Your task to perform on an android device: change alarm snooze length Image 0: 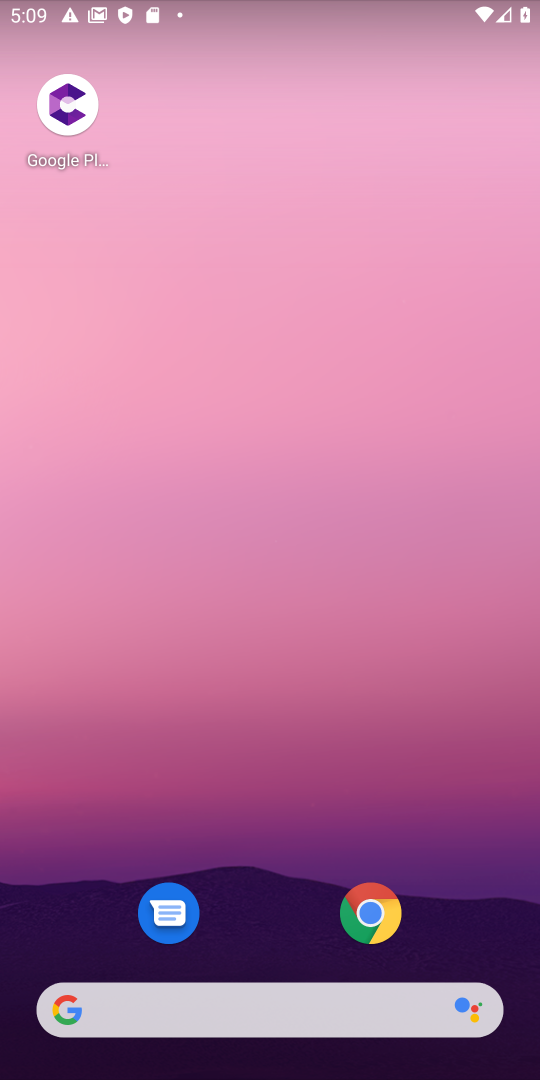
Step 0: drag from (290, 337) to (290, 248)
Your task to perform on an android device: change alarm snooze length Image 1: 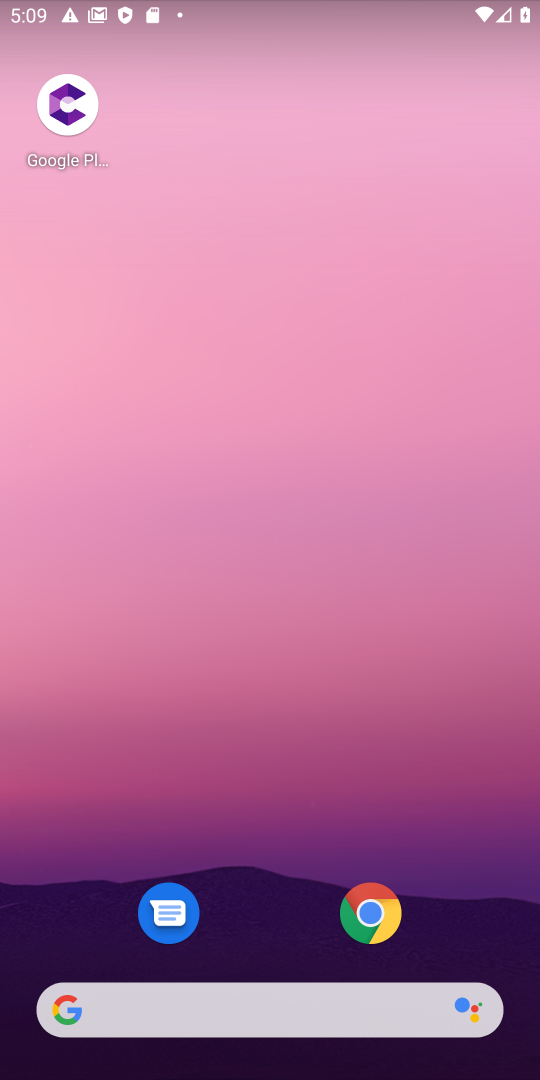
Step 1: drag from (280, 767) to (280, 27)
Your task to perform on an android device: change alarm snooze length Image 2: 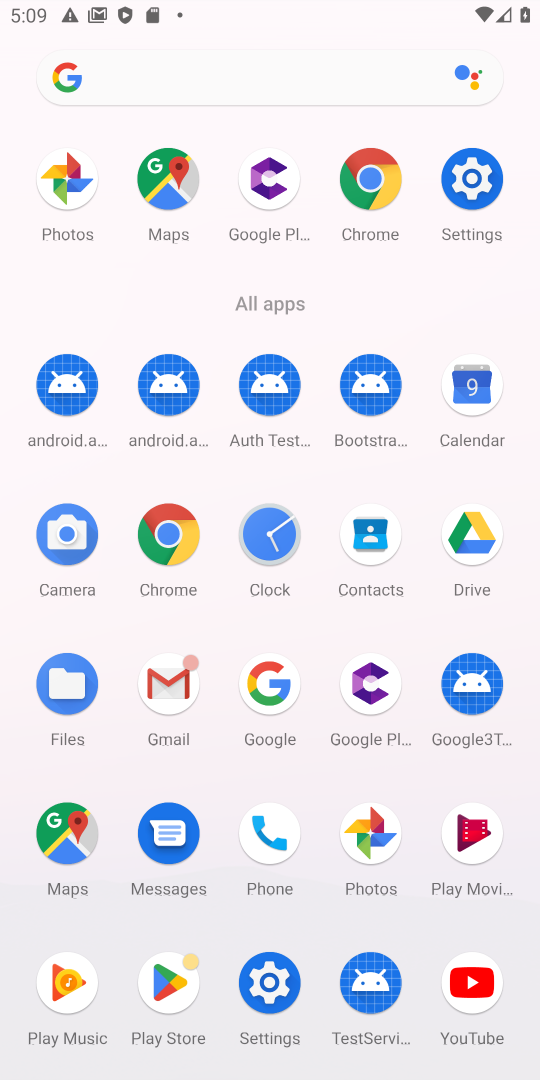
Step 2: click (280, 536)
Your task to perform on an android device: change alarm snooze length Image 3: 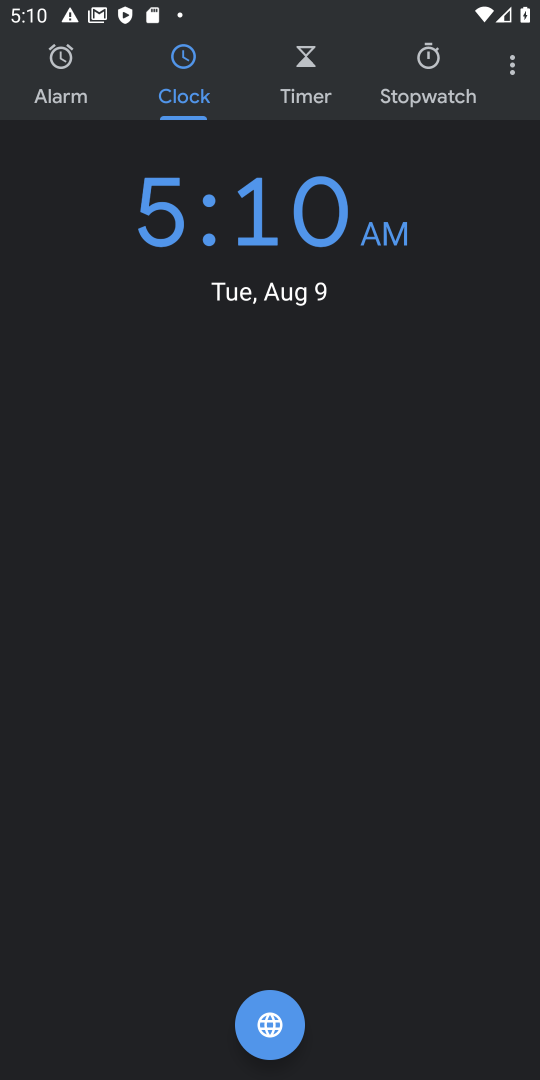
Step 3: click (510, 72)
Your task to perform on an android device: change alarm snooze length Image 4: 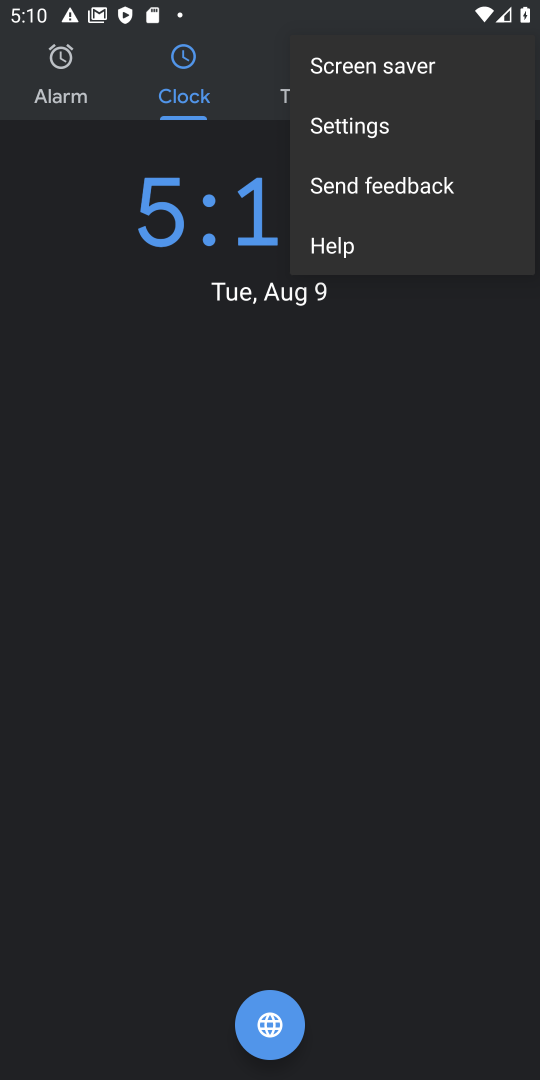
Step 4: click (440, 122)
Your task to perform on an android device: change alarm snooze length Image 5: 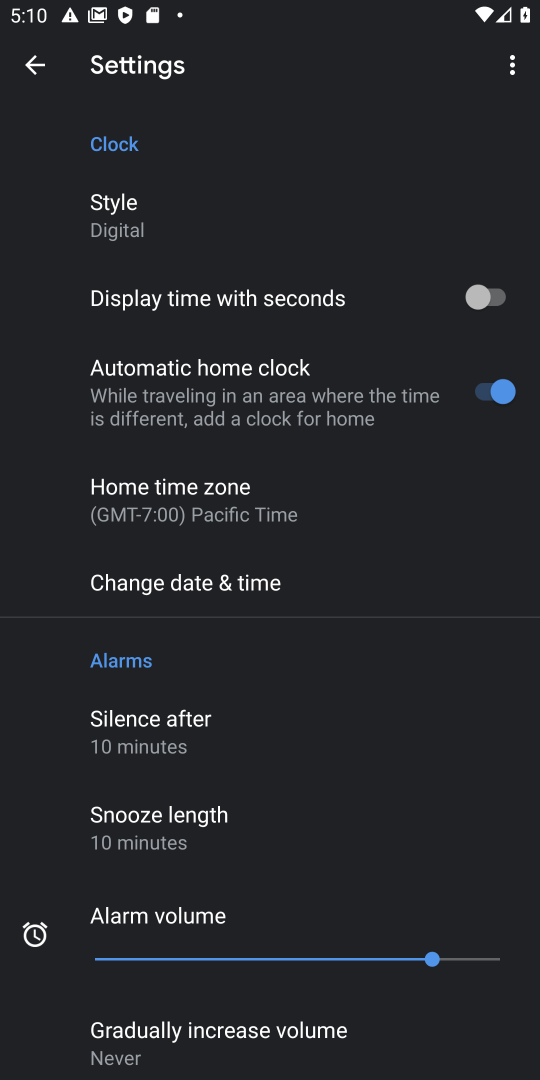
Step 5: click (201, 813)
Your task to perform on an android device: change alarm snooze length Image 6: 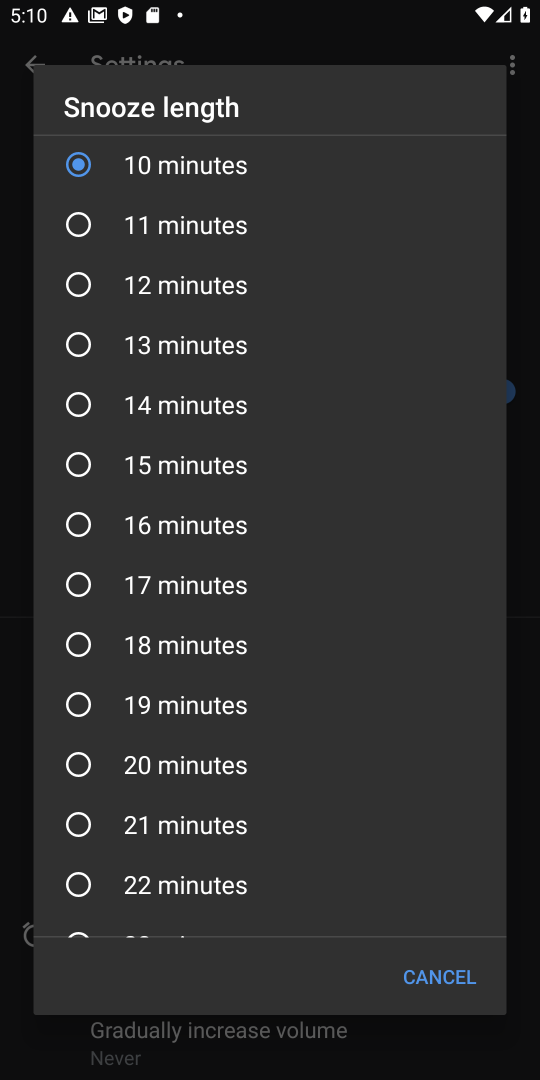
Step 6: click (111, 425)
Your task to perform on an android device: change alarm snooze length Image 7: 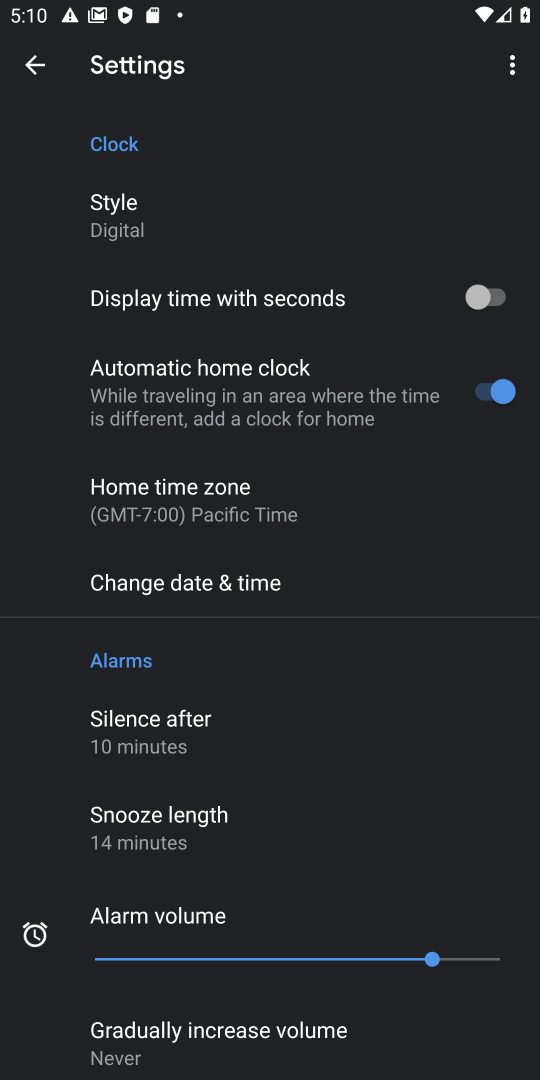
Step 7: task complete